Your task to perform on an android device: Go to Yahoo.com Image 0: 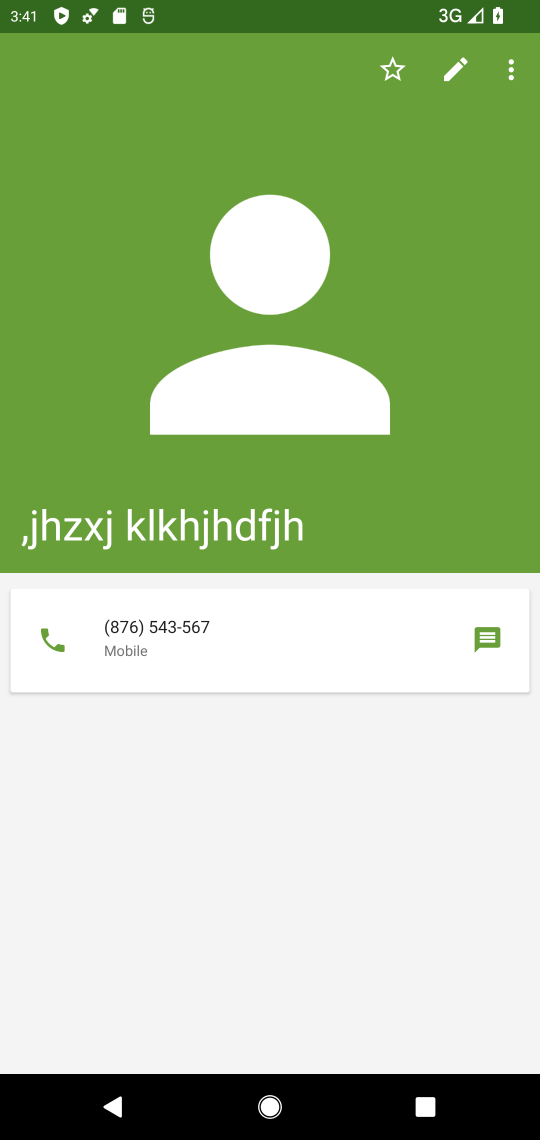
Step 0: press home button
Your task to perform on an android device: Go to Yahoo.com Image 1: 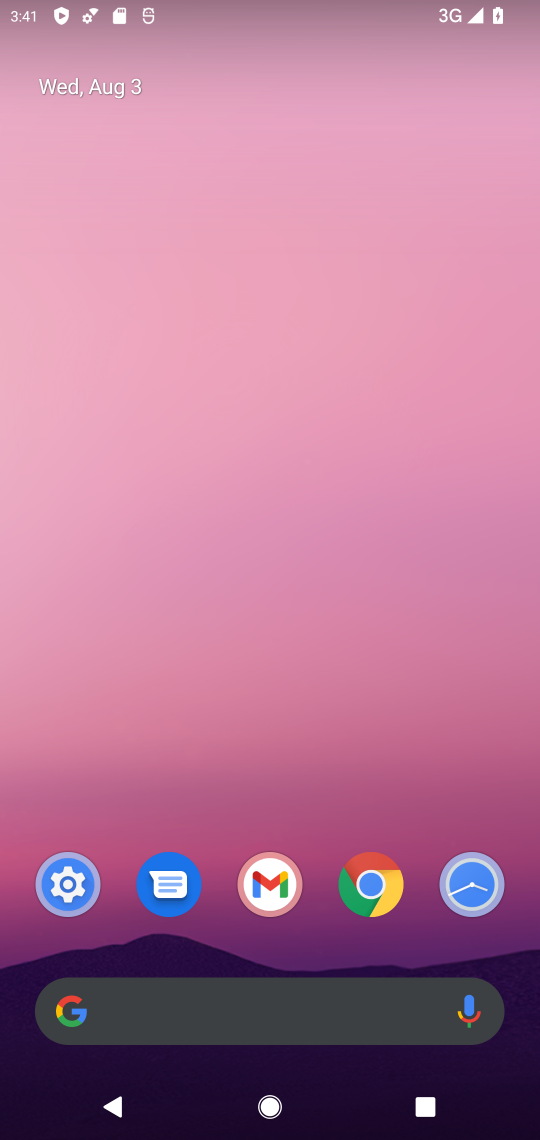
Step 1: click (219, 1001)
Your task to perform on an android device: Go to Yahoo.com Image 2: 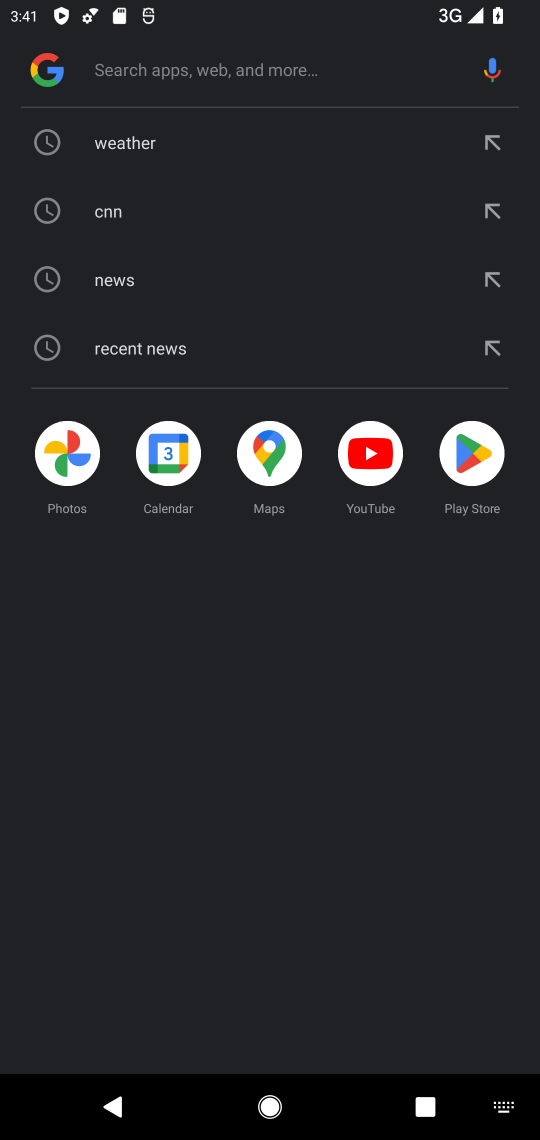
Step 2: type "yahoo.com"
Your task to perform on an android device: Go to Yahoo.com Image 3: 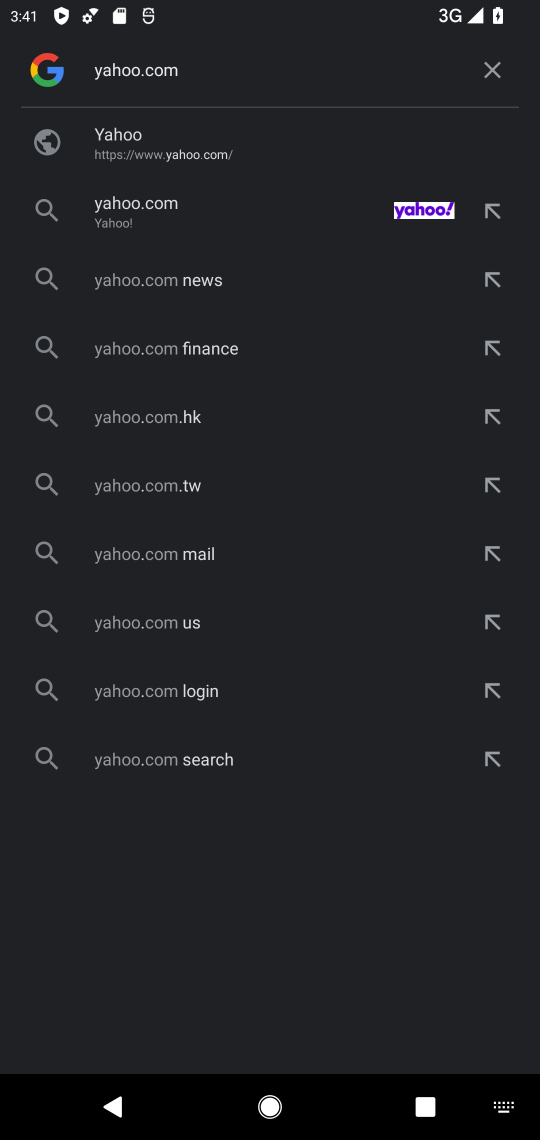
Step 3: click (299, 83)
Your task to perform on an android device: Go to Yahoo.com Image 4: 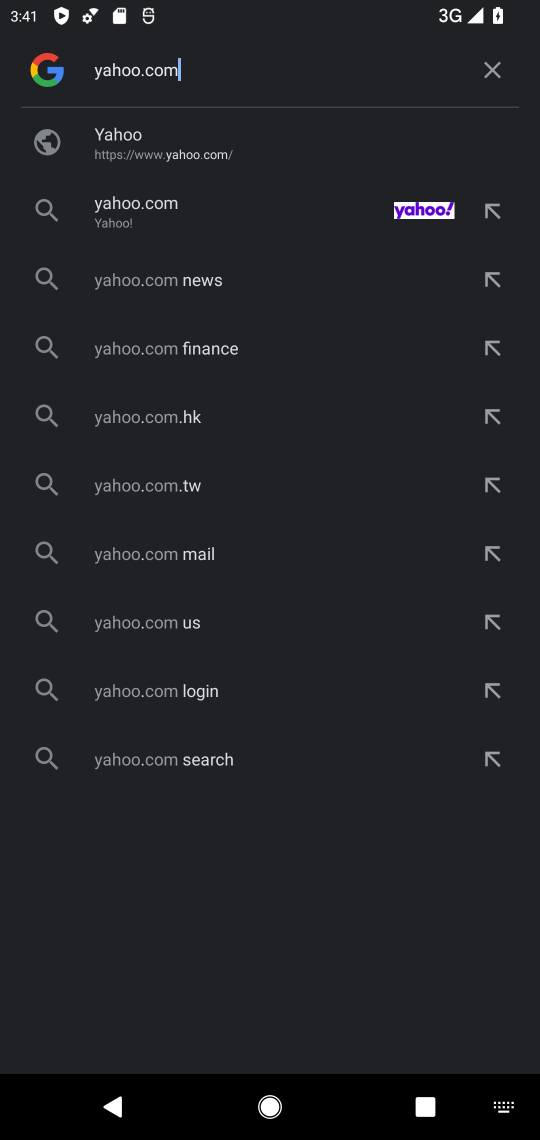
Step 4: click (198, 165)
Your task to perform on an android device: Go to Yahoo.com Image 5: 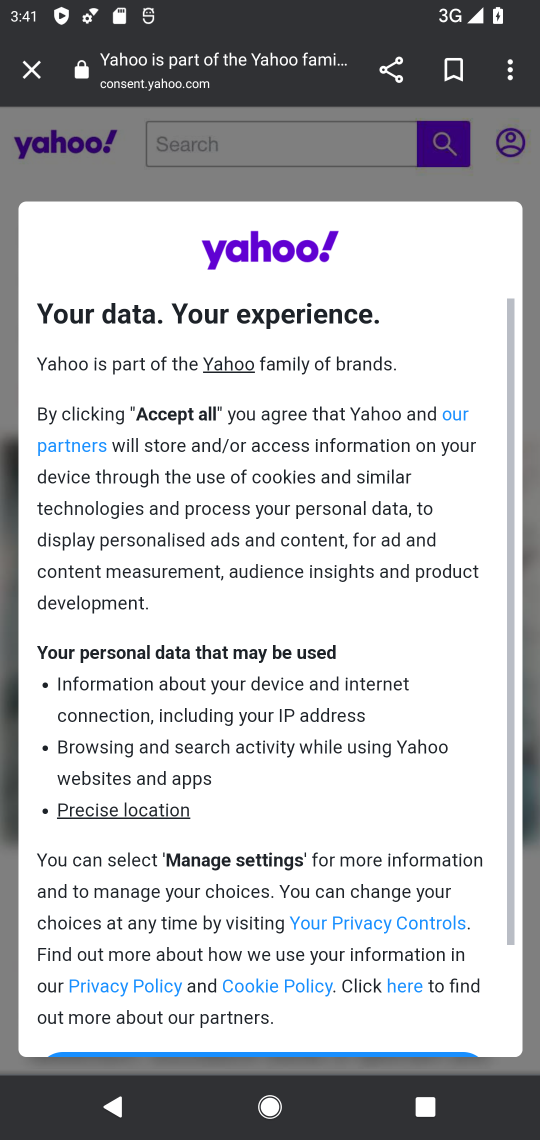
Step 5: task complete